Your task to perform on an android device: turn on wifi Image 0: 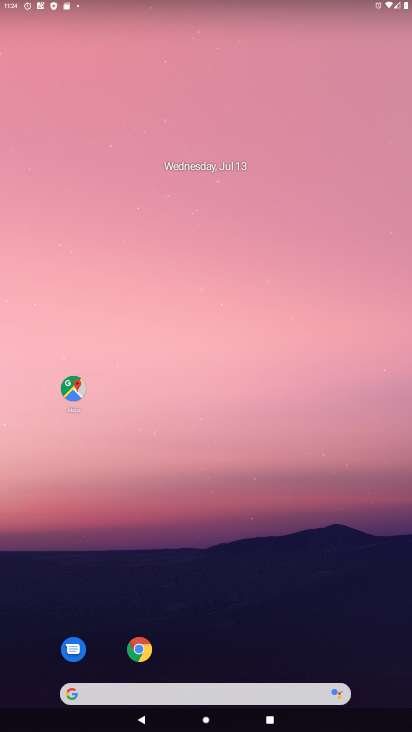
Step 0: drag from (210, 696) to (225, 74)
Your task to perform on an android device: turn on wifi Image 1: 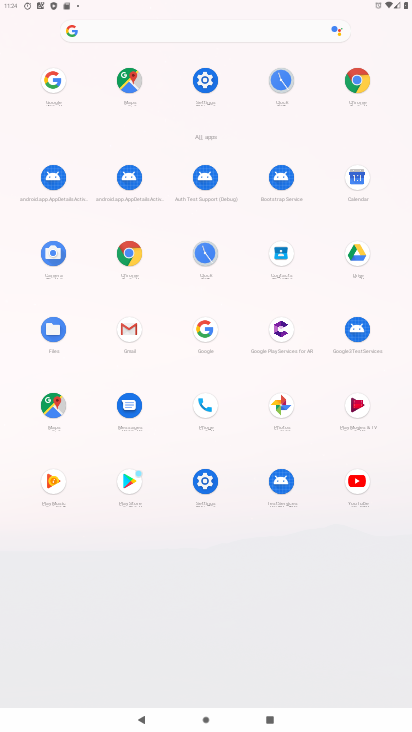
Step 1: click (206, 81)
Your task to perform on an android device: turn on wifi Image 2: 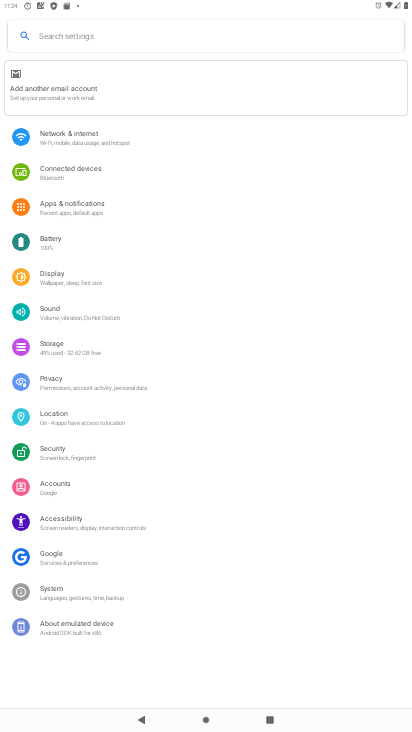
Step 2: click (108, 142)
Your task to perform on an android device: turn on wifi Image 3: 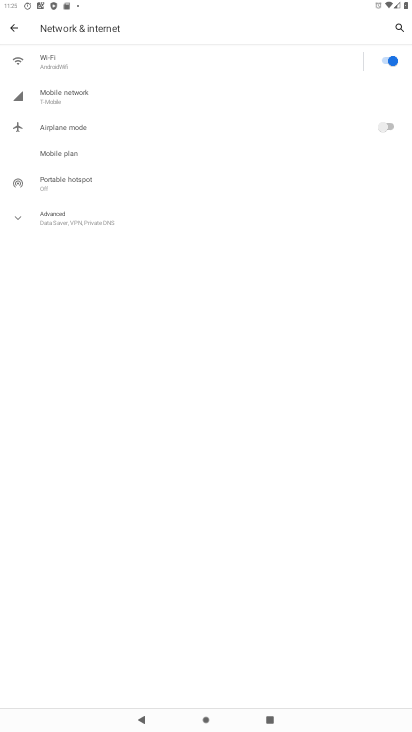
Step 3: task complete